Your task to perform on an android device: Open Amazon Image 0: 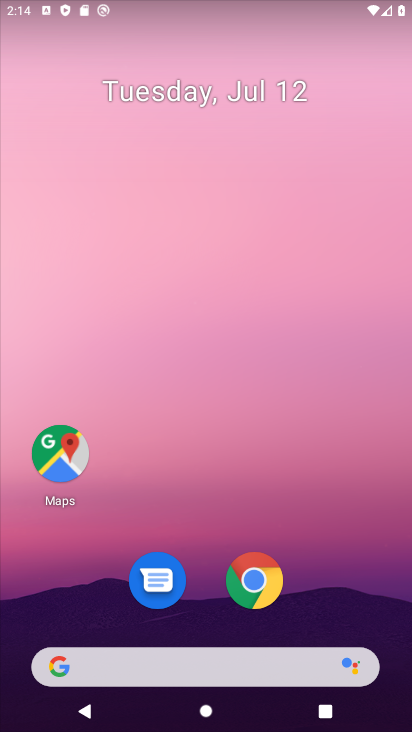
Step 0: click (250, 559)
Your task to perform on an android device: Open Amazon Image 1: 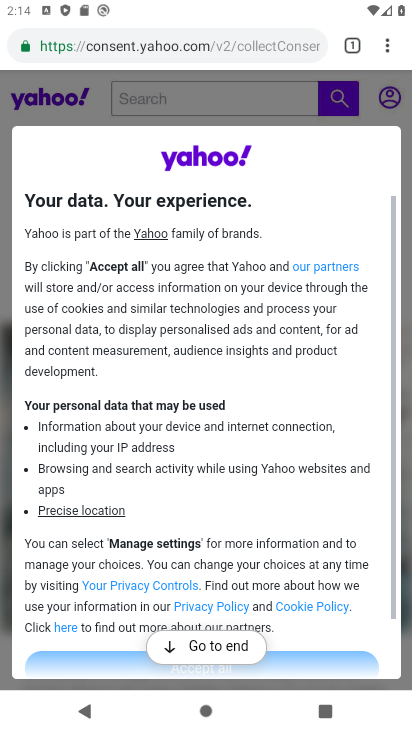
Step 1: click (353, 39)
Your task to perform on an android device: Open Amazon Image 2: 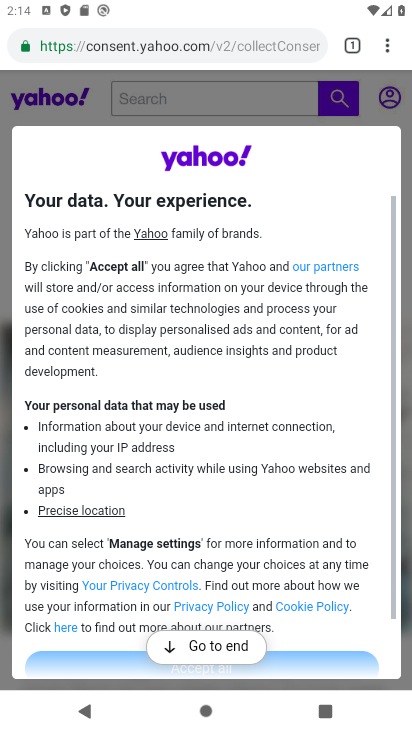
Step 2: click (353, 39)
Your task to perform on an android device: Open Amazon Image 3: 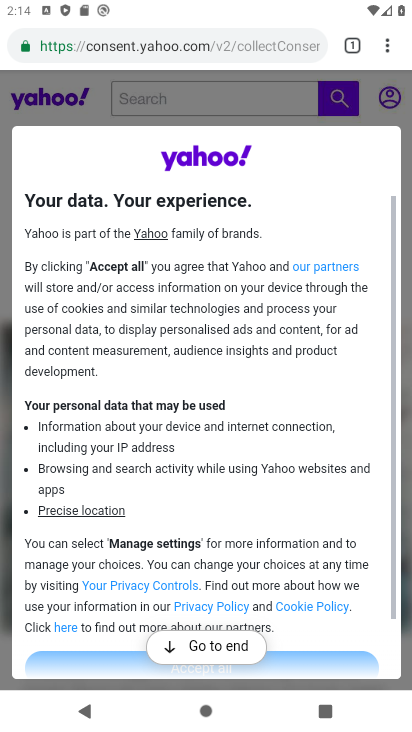
Step 3: click (350, 42)
Your task to perform on an android device: Open Amazon Image 4: 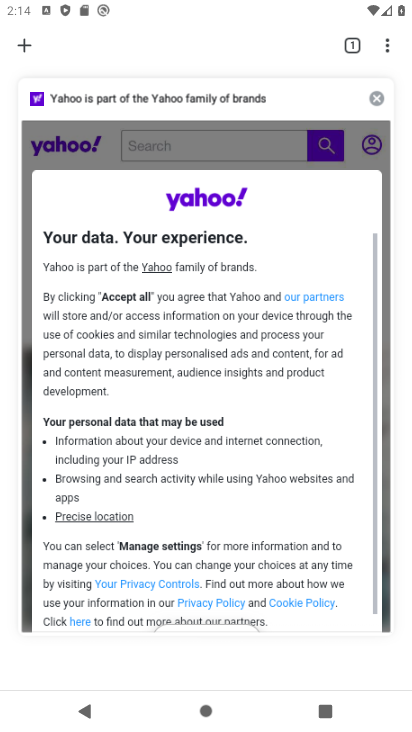
Step 4: click (18, 38)
Your task to perform on an android device: Open Amazon Image 5: 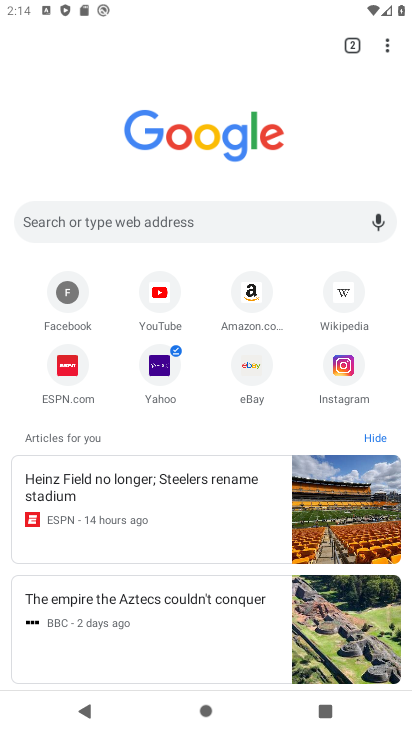
Step 5: click (248, 306)
Your task to perform on an android device: Open Amazon Image 6: 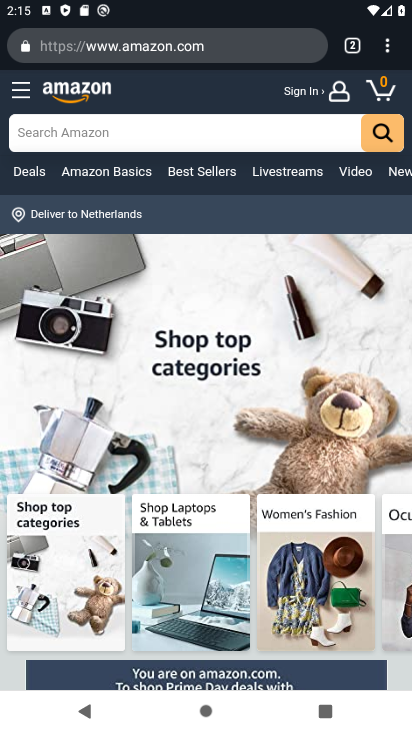
Step 6: task complete